Your task to perform on an android device: Go to ESPN.com Image 0: 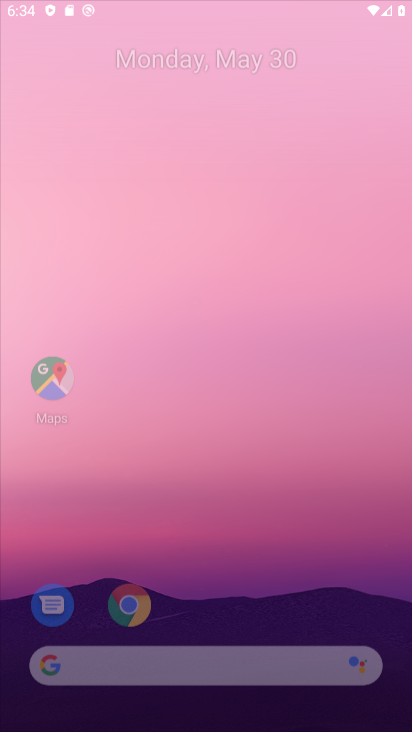
Step 0: click (366, 43)
Your task to perform on an android device: Go to ESPN.com Image 1: 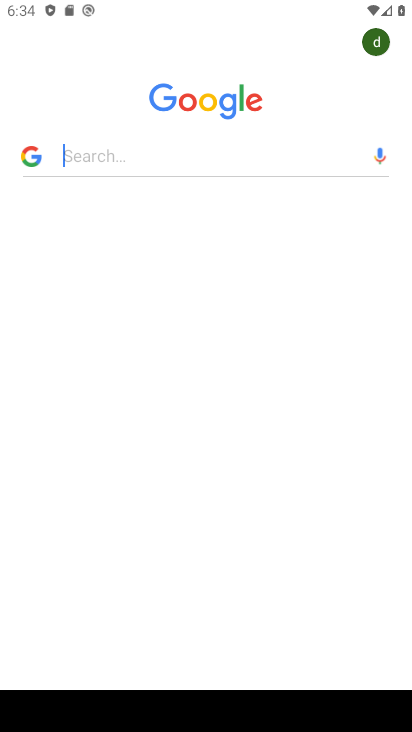
Step 1: press home button
Your task to perform on an android device: Go to ESPN.com Image 2: 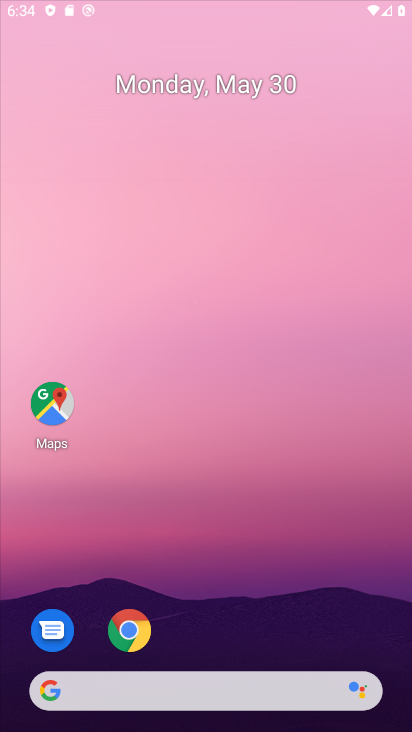
Step 2: drag from (399, 558) to (340, 0)
Your task to perform on an android device: Go to ESPN.com Image 3: 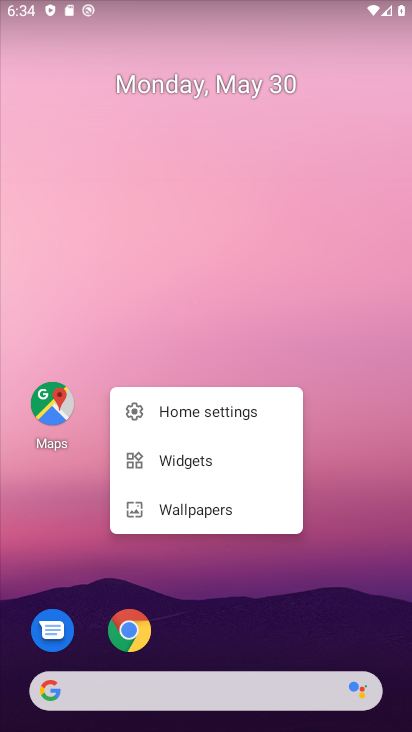
Step 3: click (272, 579)
Your task to perform on an android device: Go to ESPN.com Image 4: 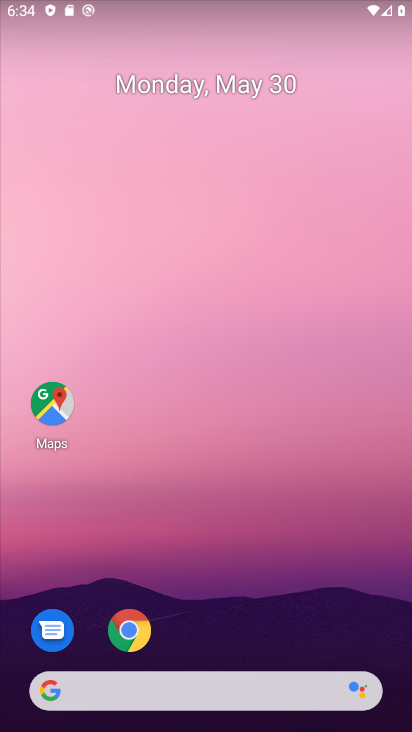
Step 4: drag from (301, 596) to (260, 1)
Your task to perform on an android device: Go to ESPN.com Image 5: 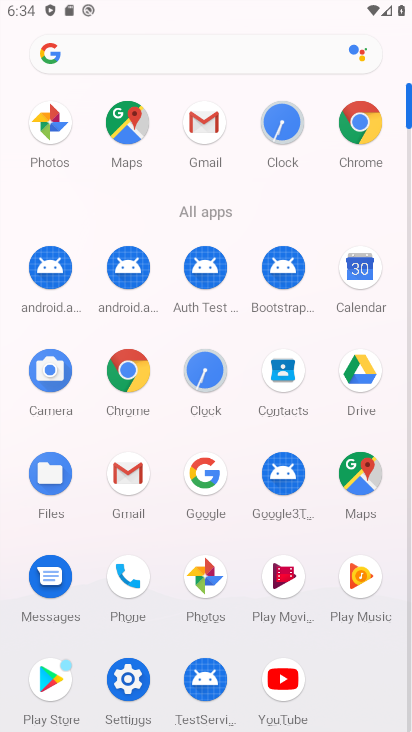
Step 5: click (200, 484)
Your task to perform on an android device: Go to ESPN.com Image 6: 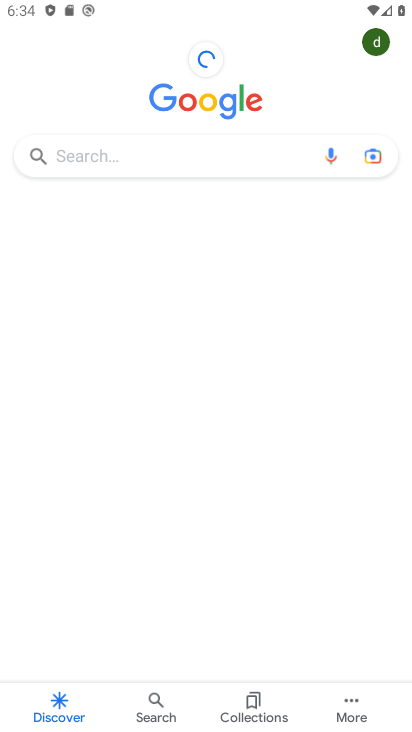
Step 6: click (154, 155)
Your task to perform on an android device: Go to ESPN.com Image 7: 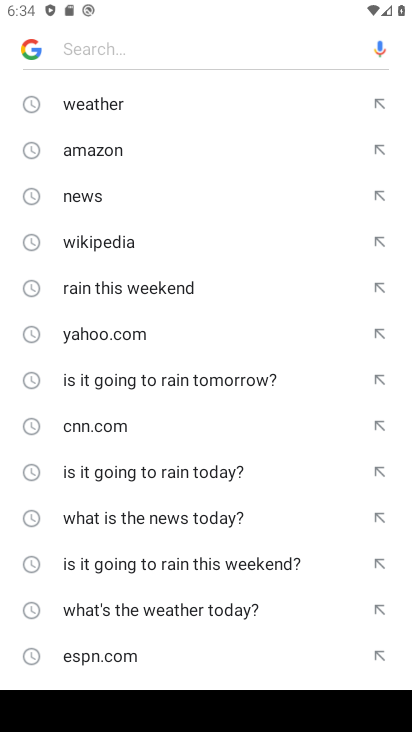
Step 7: click (124, 660)
Your task to perform on an android device: Go to ESPN.com Image 8: 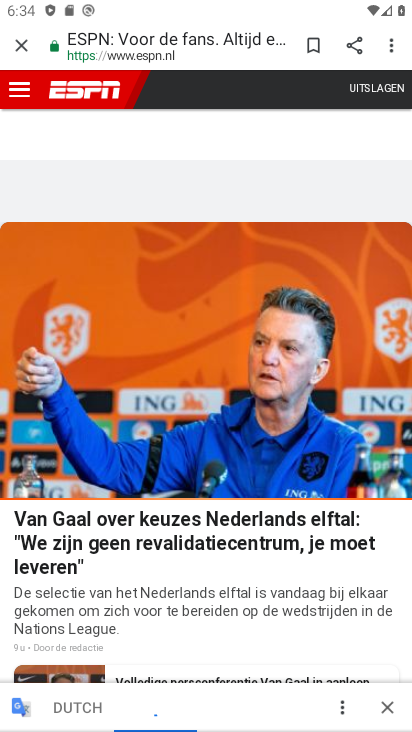
Step 8: task complete